Your task to perform on an android device: Open the stopwatch Image 0: 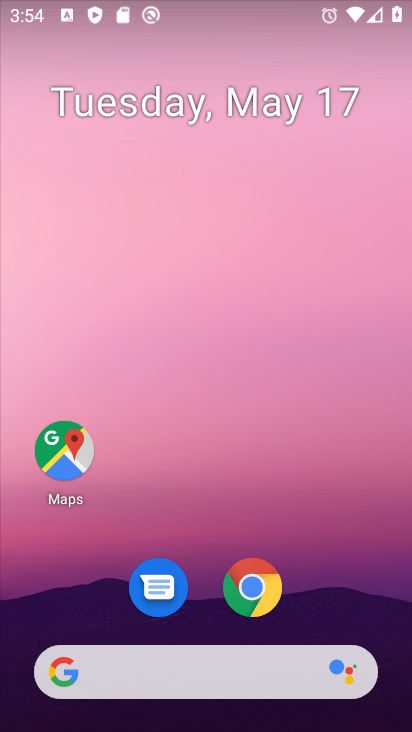
Step 0: drag from (192, 635) to (329, 1)
Your task to perform on an android device: Open the stopwatch Image 1: 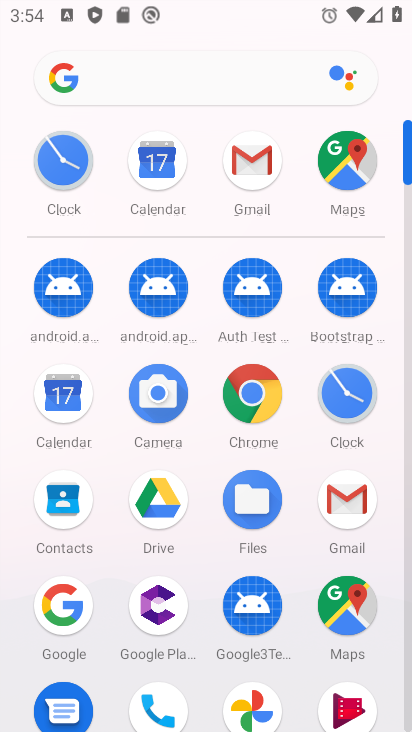
Step 1: click (199, 57)
Your task to perform on an android device: Open the stopwatch Image 2: 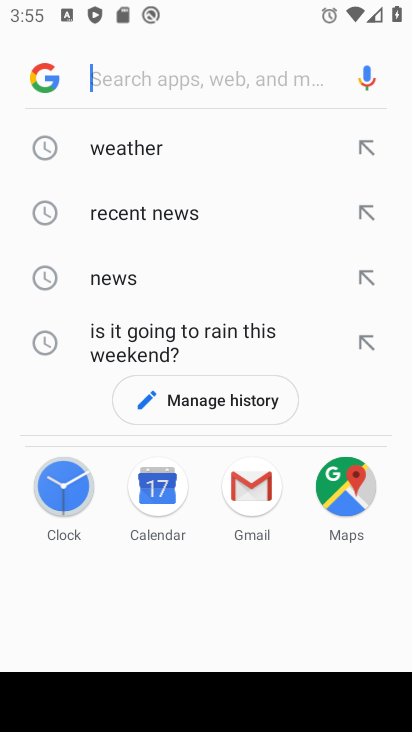
Step 2: press home button
Your task to perform on an android device: Open the stopwatch Image 3: 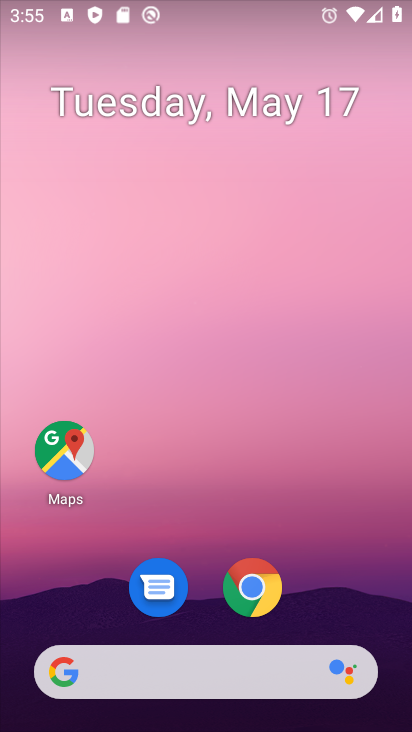
Step 3: drag from (173, 549) to (272, 41)
Your task to perform on an android device: Open the stopwatch Image 4: 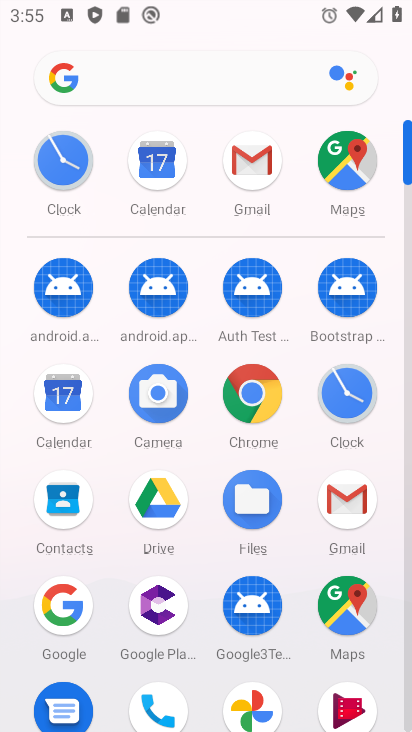
Step 4: click (351, 389)
Your task to perform on an android device: Open the stopwatch Image 5: 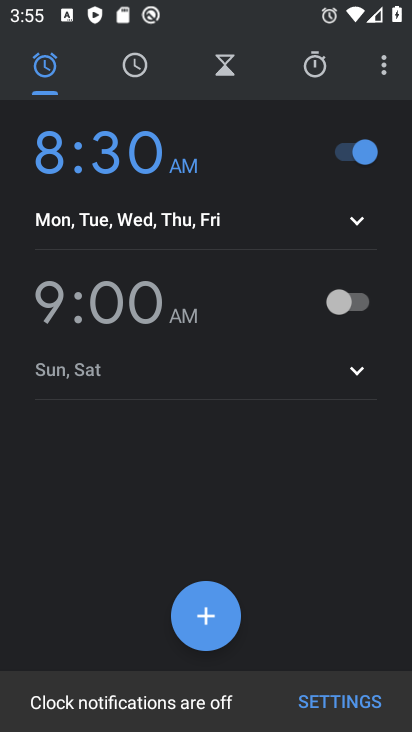
Step 5: click (314, 59)
Your task to perform on an android device: Open the stopwatch Image 6: 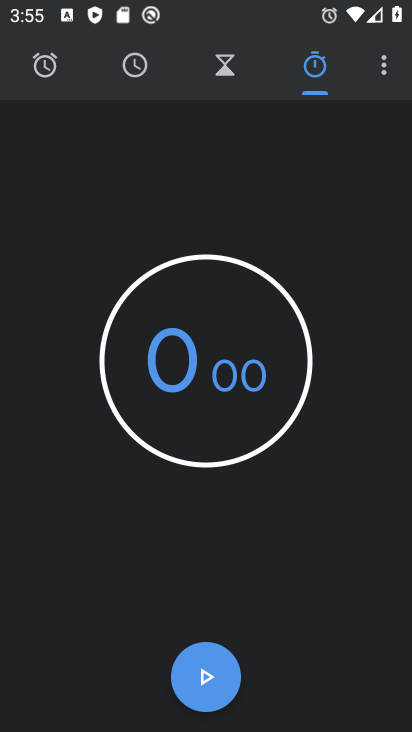
Step 6: click (197, 697)
Your task to perform on an android device: Open the stopwatch Image 7: 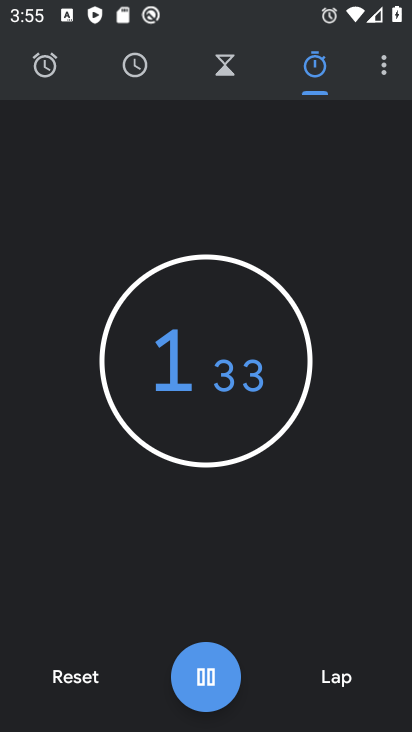
Step 7: task complete